Your task to perform on an android device: Go to calendar. Show me events next week Image 0: 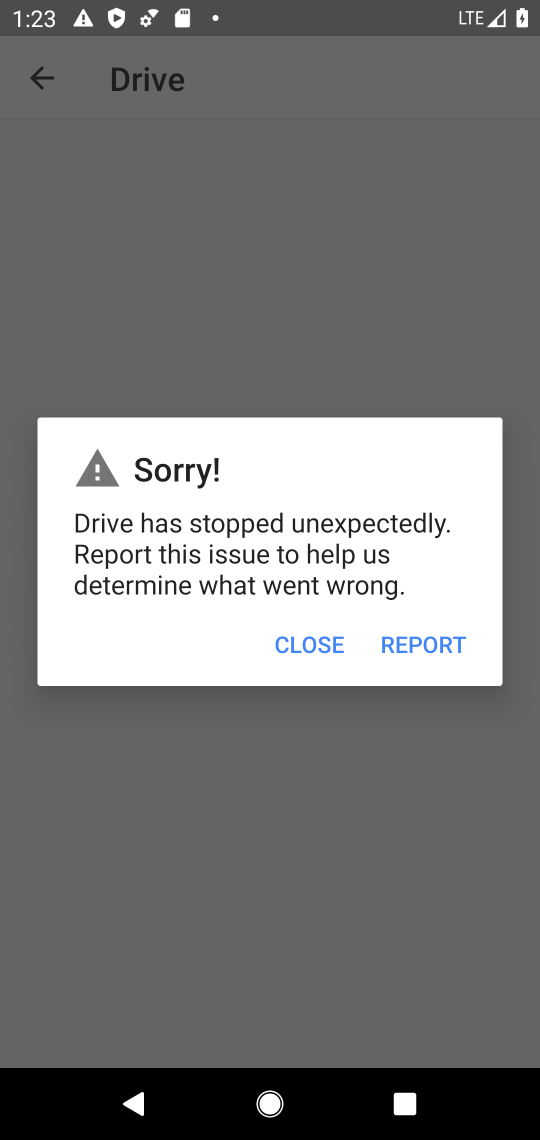
Step 0: press home button
Your task to perform on an android device: Go to calendar. Show me events next week Image 1: 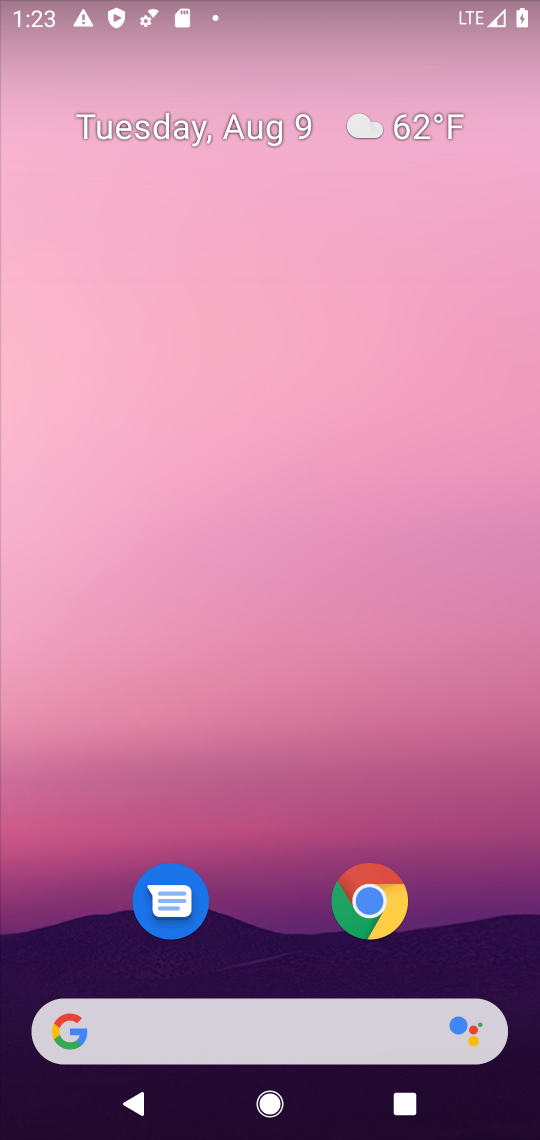
Step 1: drag from (515, 1005) to (409, 204)
Your task to perform on an android device: Go to calendar. Show me events next week Image 2: 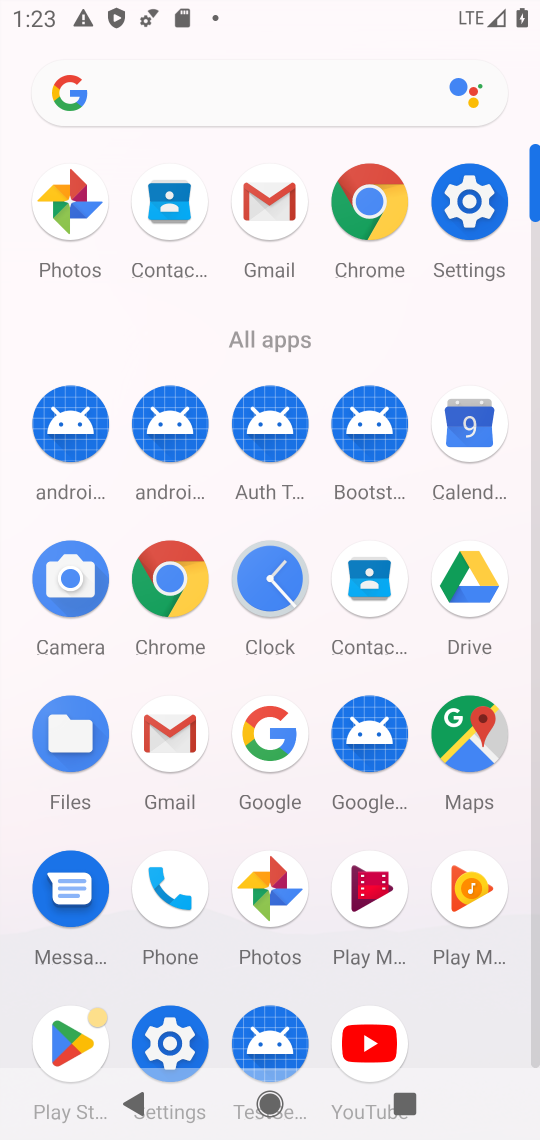
Step 2: click (476, 416)
Your task to perform on an android device: Go to calendar. Show me events next week Image 3: 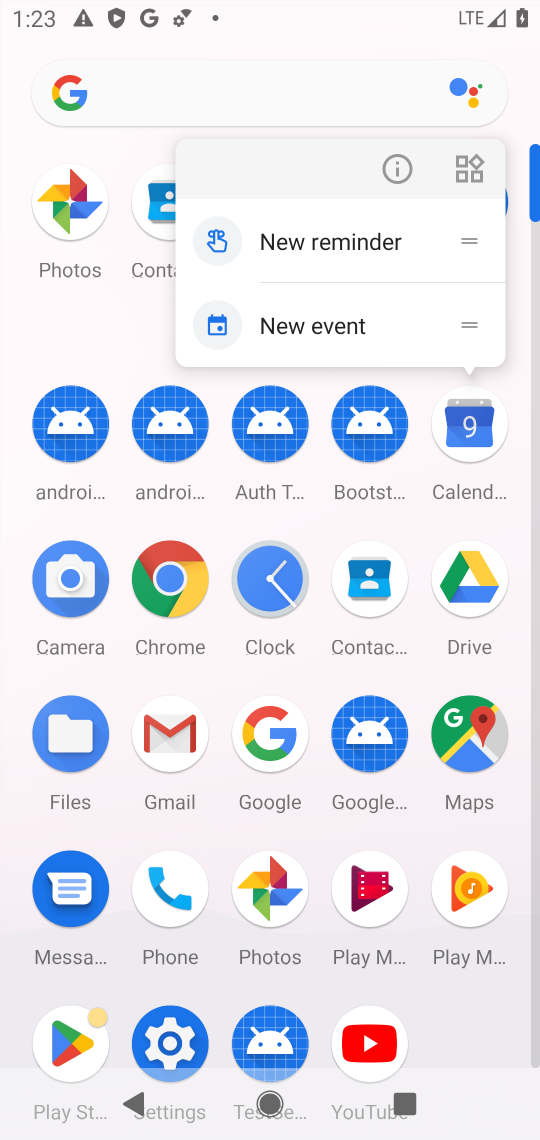
Step 3: click (468, 419)
Your task to perform on an android device: Go to calendar. Show me events next week Image 4: 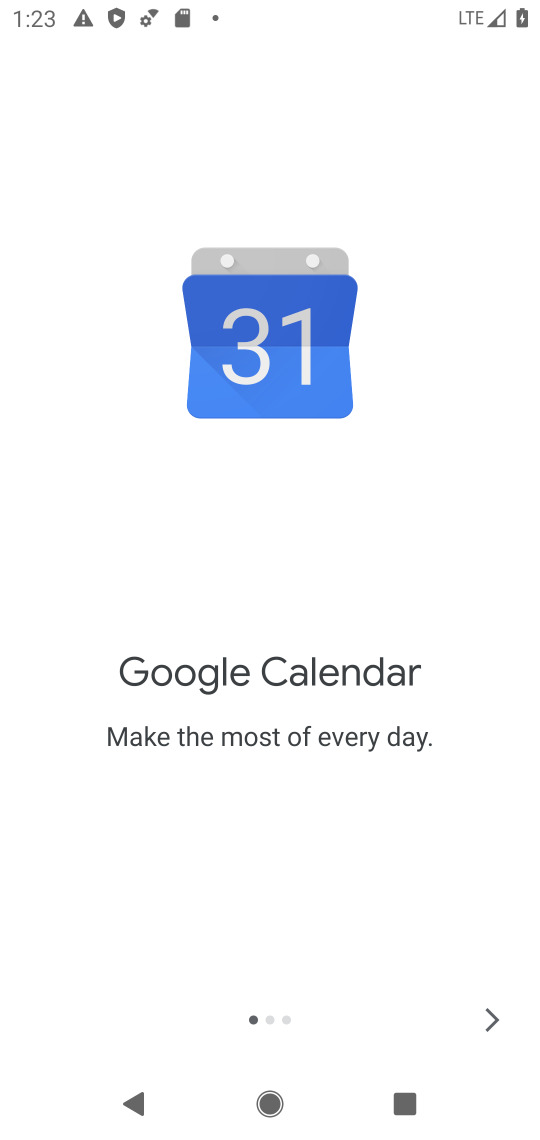
Step 4: click (486, 1012)
Your task to perform on an android device: Go to calendar. Show me events next week Image 5: 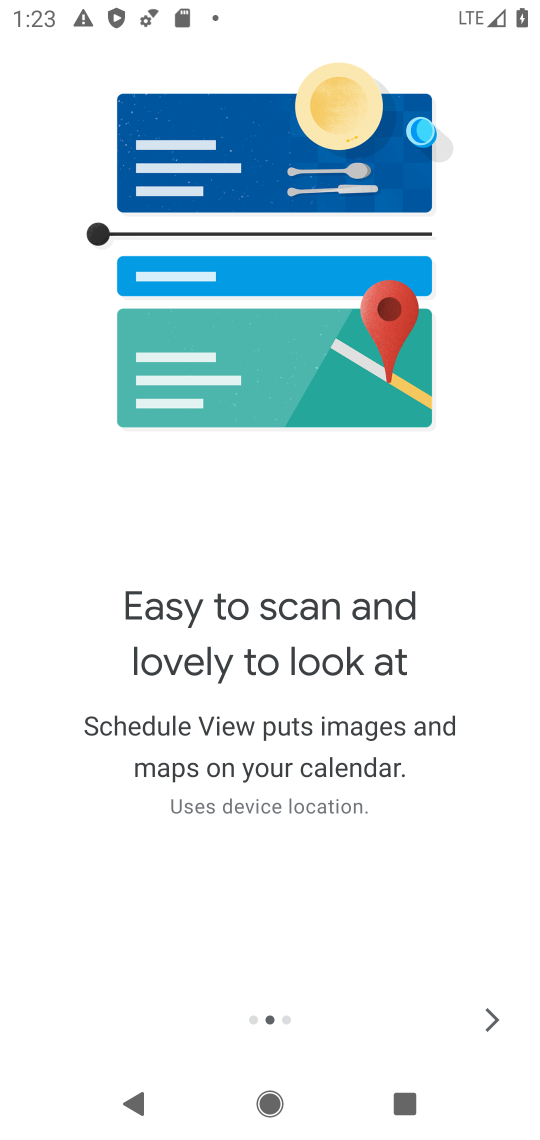
Step 5: click (488, 1016)
Your task to perform on an android device: Go to calendar. Show me events next week Image 6: 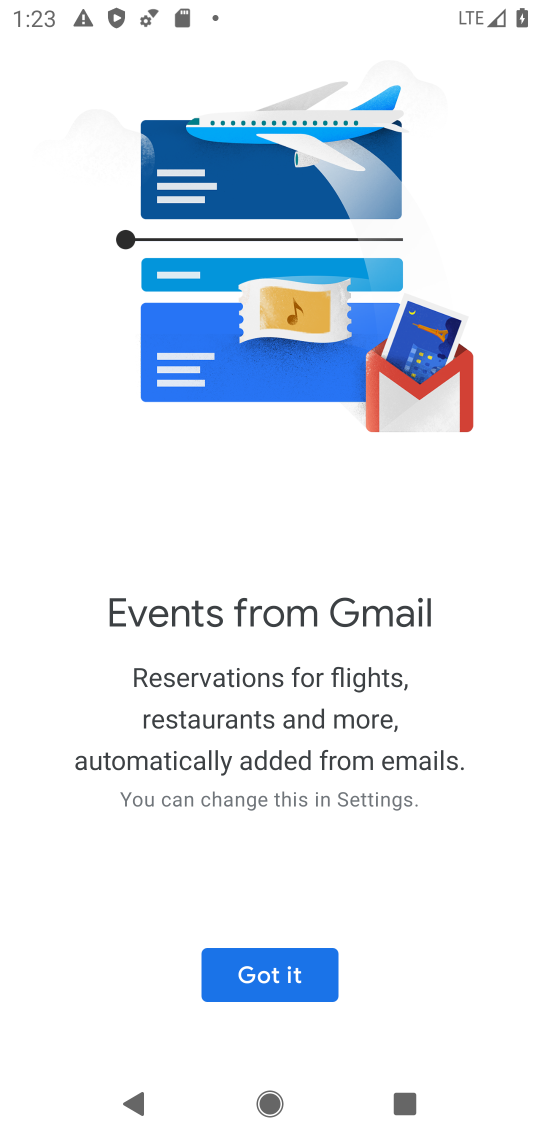
Step 6: click (267, 973)
Your task to perform on an android device: Go to calendar. Show me events next week Image 7: 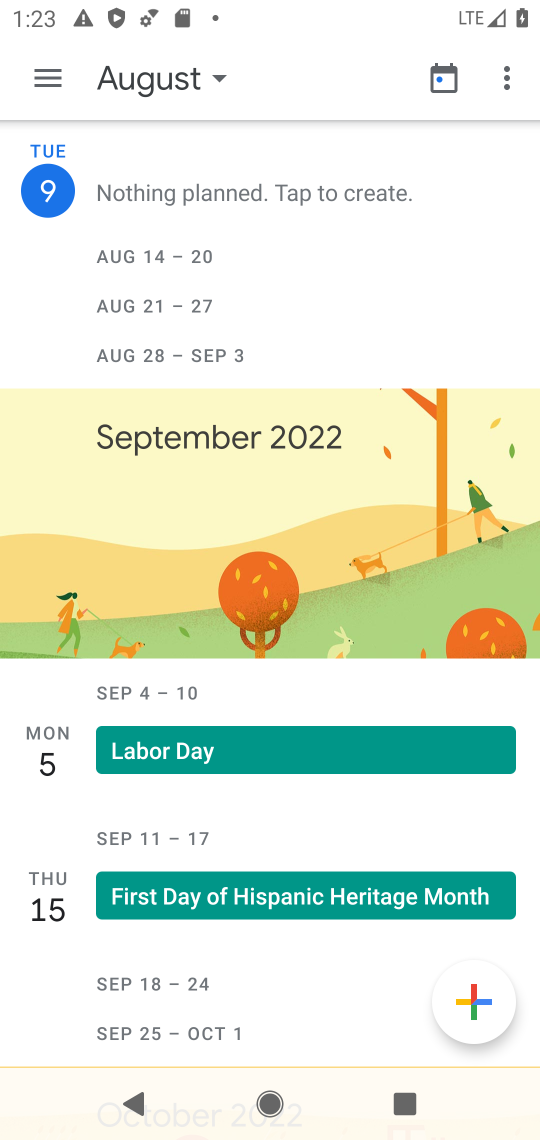
Step 7: click (57, 77)
Your task to perform on an android device: Go to calendar. Show me events next week Image 8: 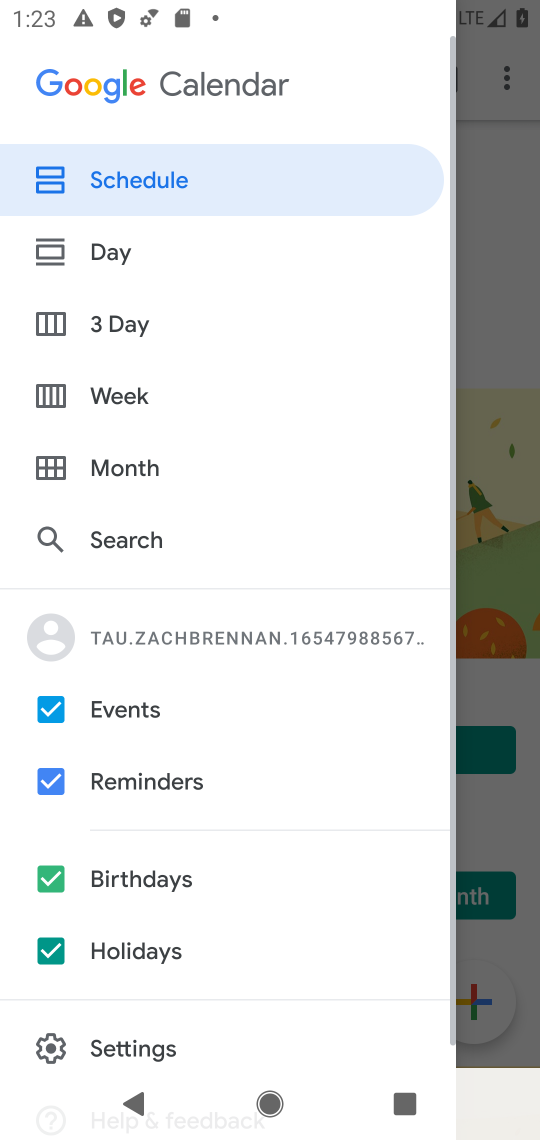
Step 8: click (126, 385)
Your task to perform on an android device: Go to calendar. Show me events next week Image 9: 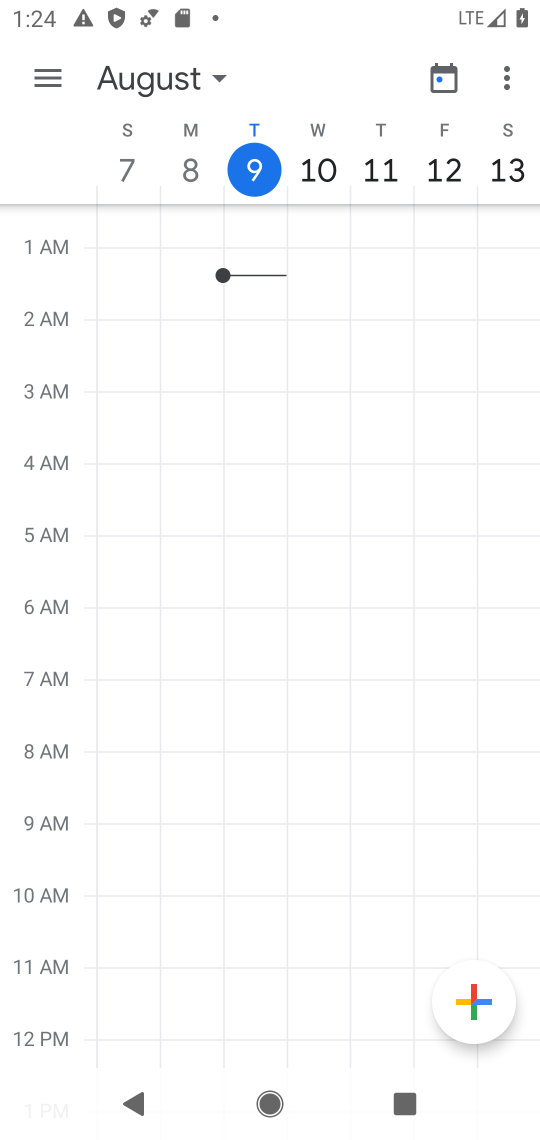
Step 9: click (218, 74)
Your task to perform on an android device: Go to calendar. Show me events next week Image 10: 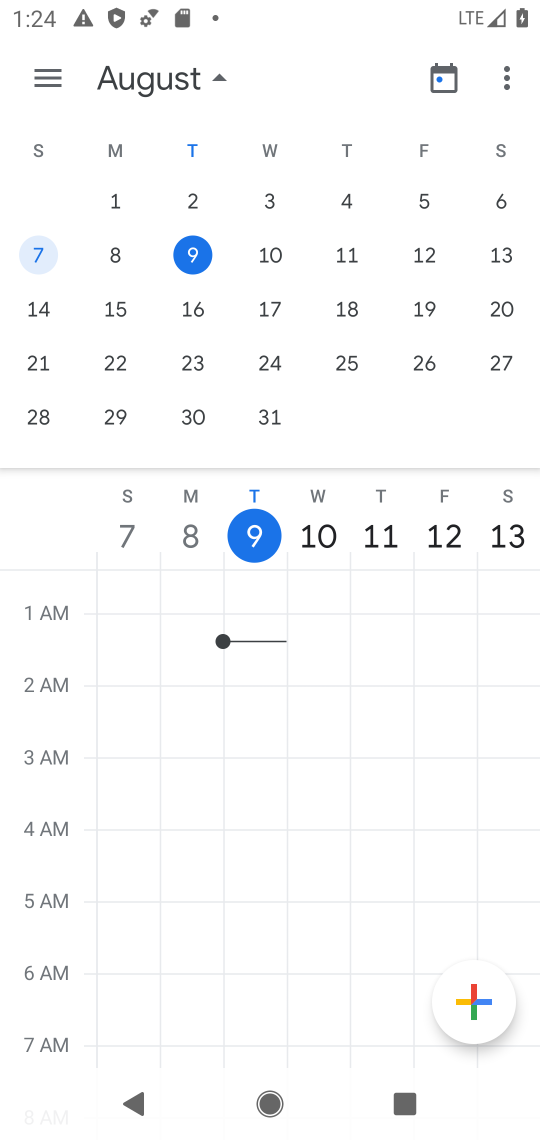
Step 10: click (36, 317)
Your task to perform on an android device: Go to calendar. Show me events next week Image 11: 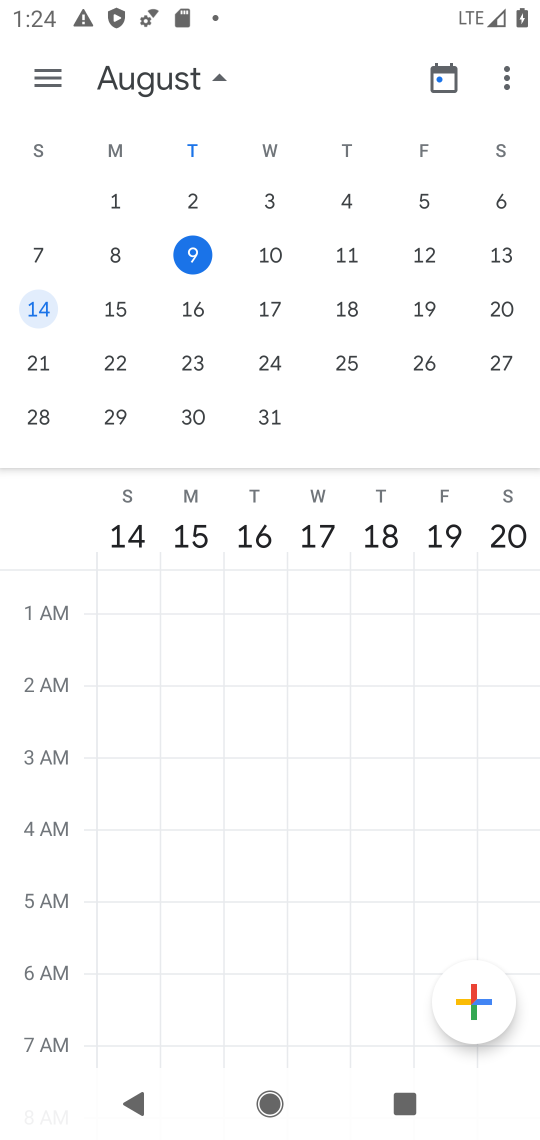
Step 11: task complete